Your task to perform on an android device: Open location settings Image 0: 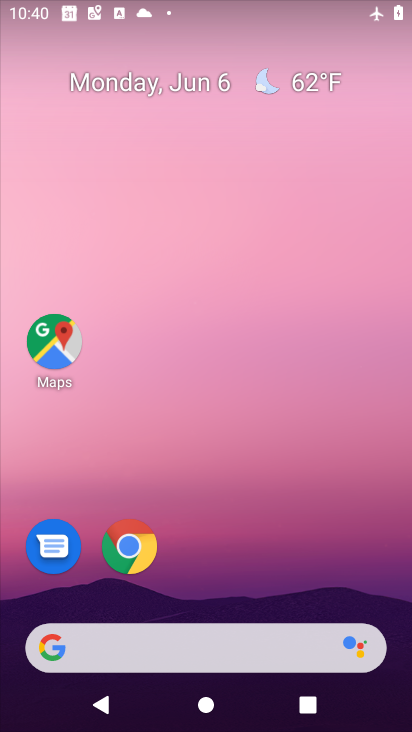
Step 0: drag from (353, 604) to (328, 94)
Your task to perform on an android device: Open location settings Image 1: 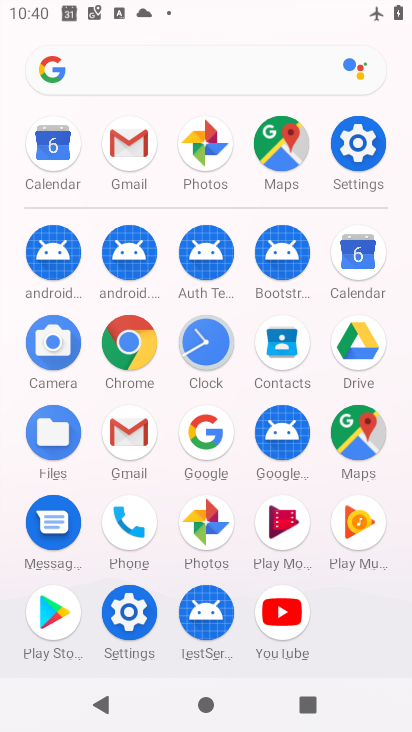
Step 1: click (130, 612)
Your task to perform on an android device: Open location settings Image 2: 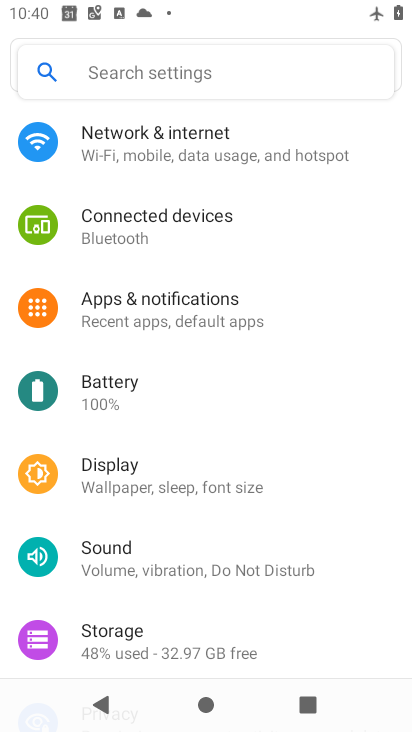
Step 2: drag from (344, 615) to (330, 285)
Your task to perform on an android device: Open location settings Image 3: 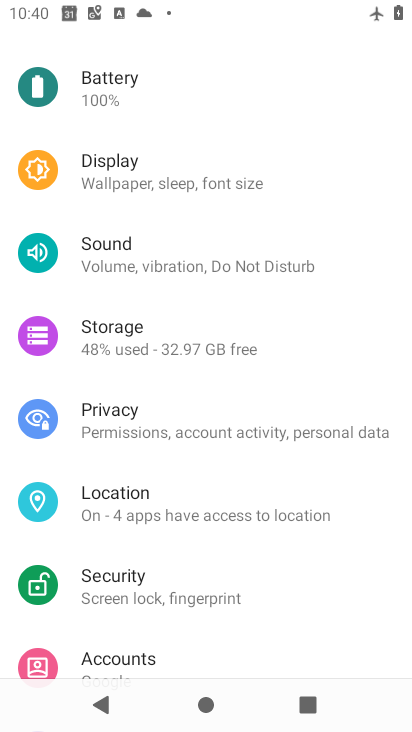
Step 3: click (139, 491)
Your task to perform on an android device: Open location settings Image 4: 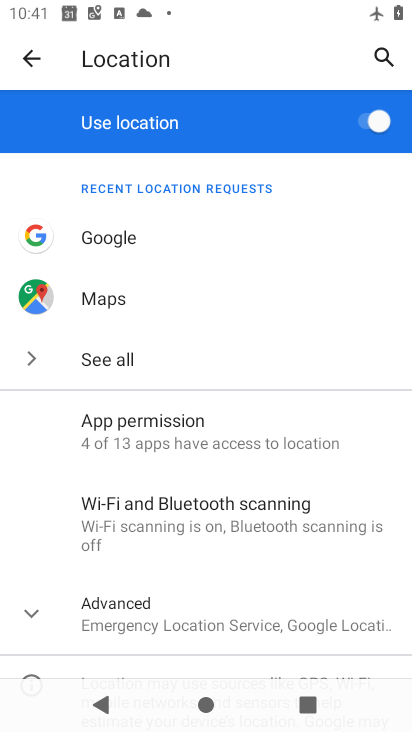
Step 4: task complete